Your task to perform on an android device: open chrome and create a bookmark for the current page Image 0: 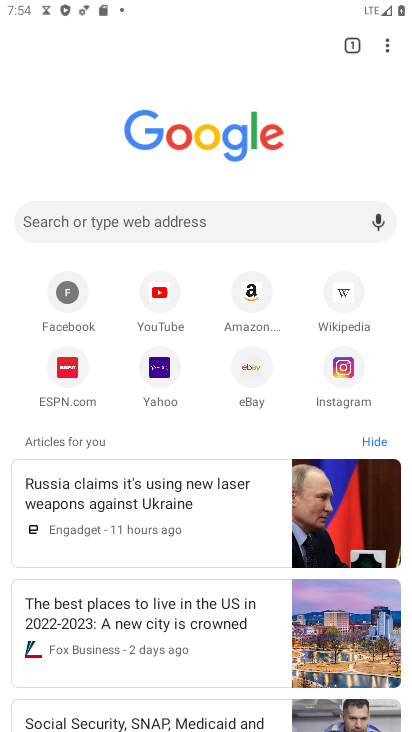
Step 0: drag from (381, 53) to (258, 59)
Your task to perform on an android device: open chrome and create a bookmark for the current page Image 1: 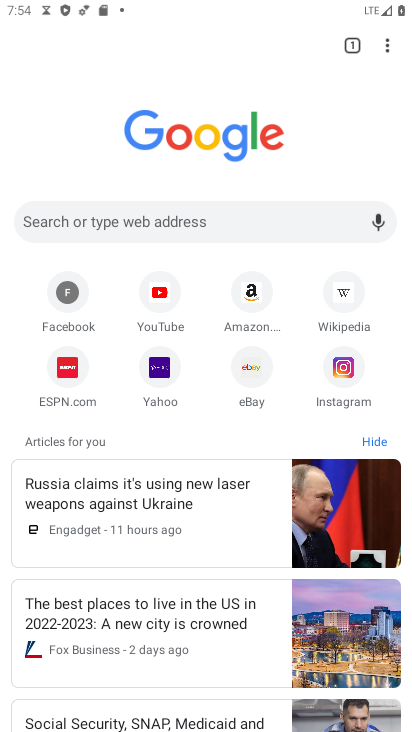
Step 1: task complete